Your task to perform on an android device: How big is a dinosaur? Image 0: 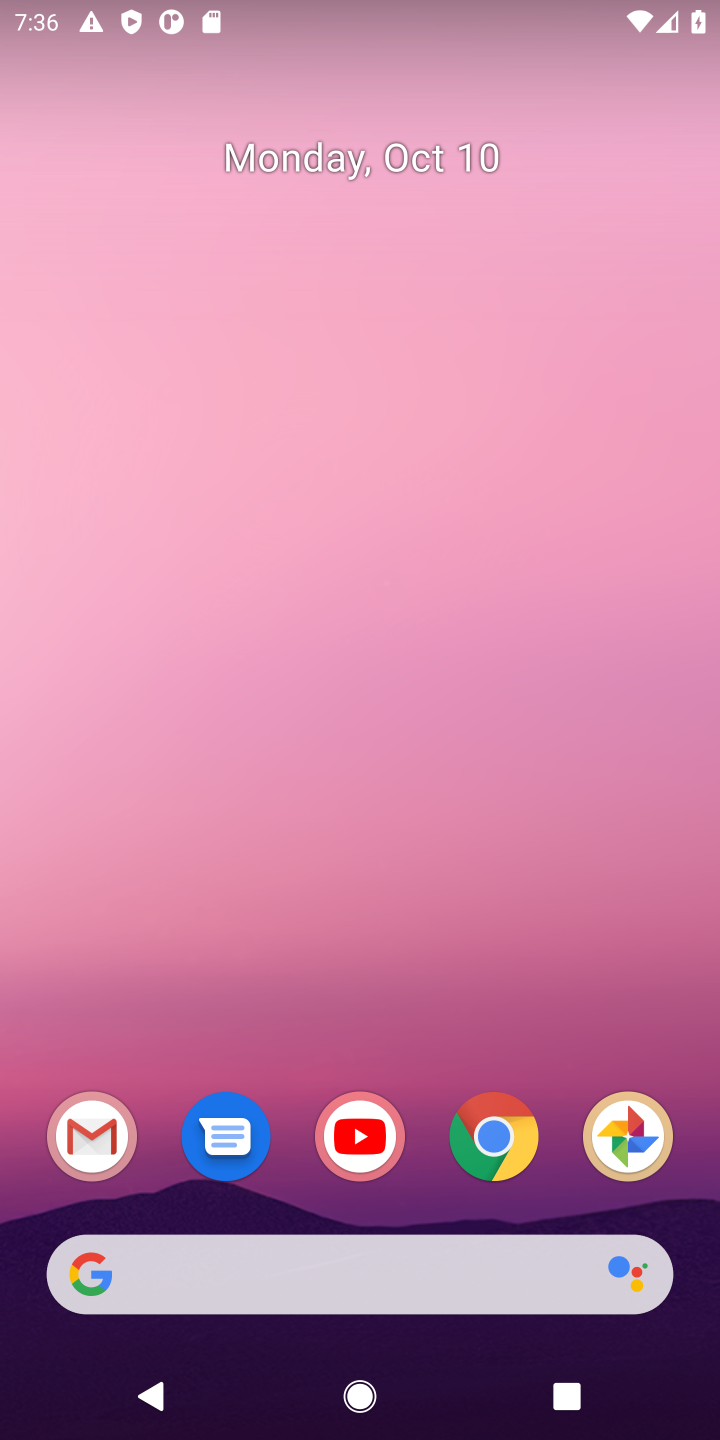
Step 0: drag from (430, 880) to (391, 60)
Your task to perform on an android device: How big is a dinosaur? Image 1: 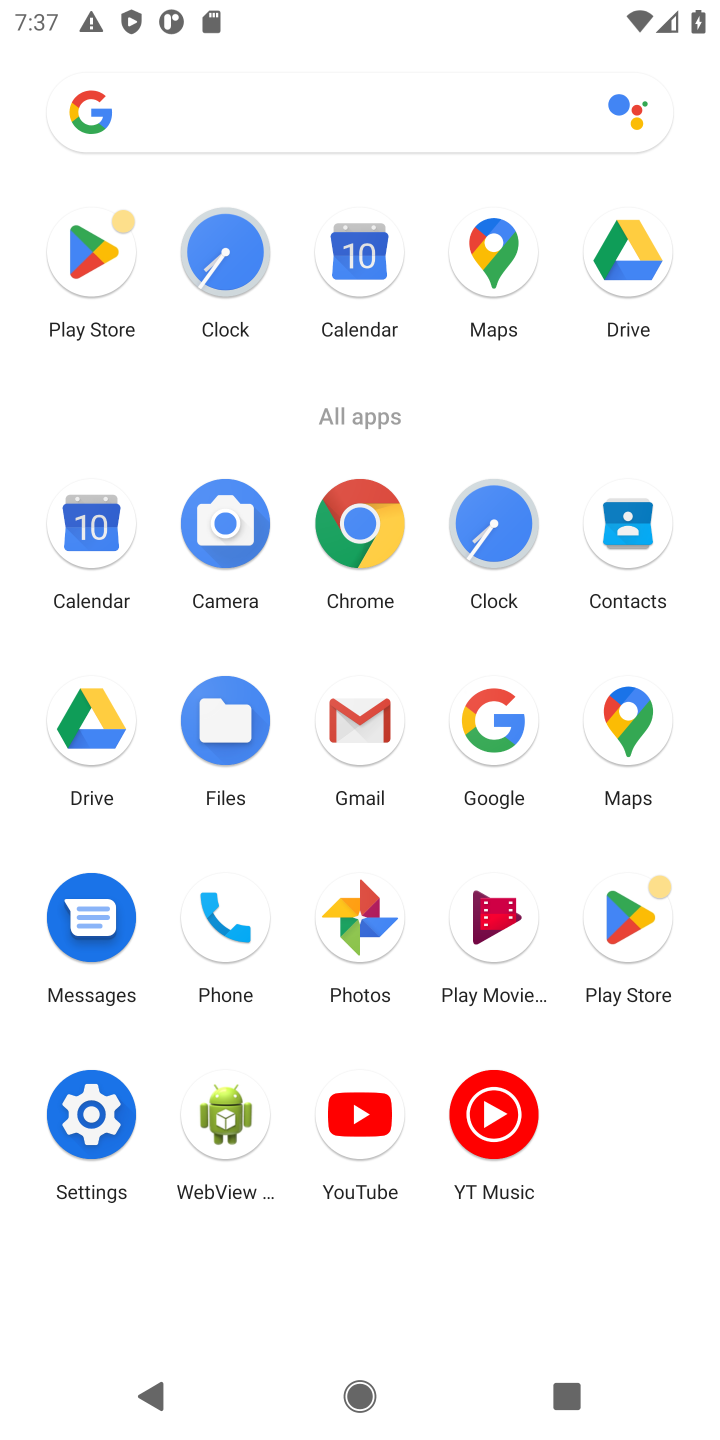
Step 1: click (363, 515)
Your task to perform on an android device: How big is a dinosaur? Image 2: 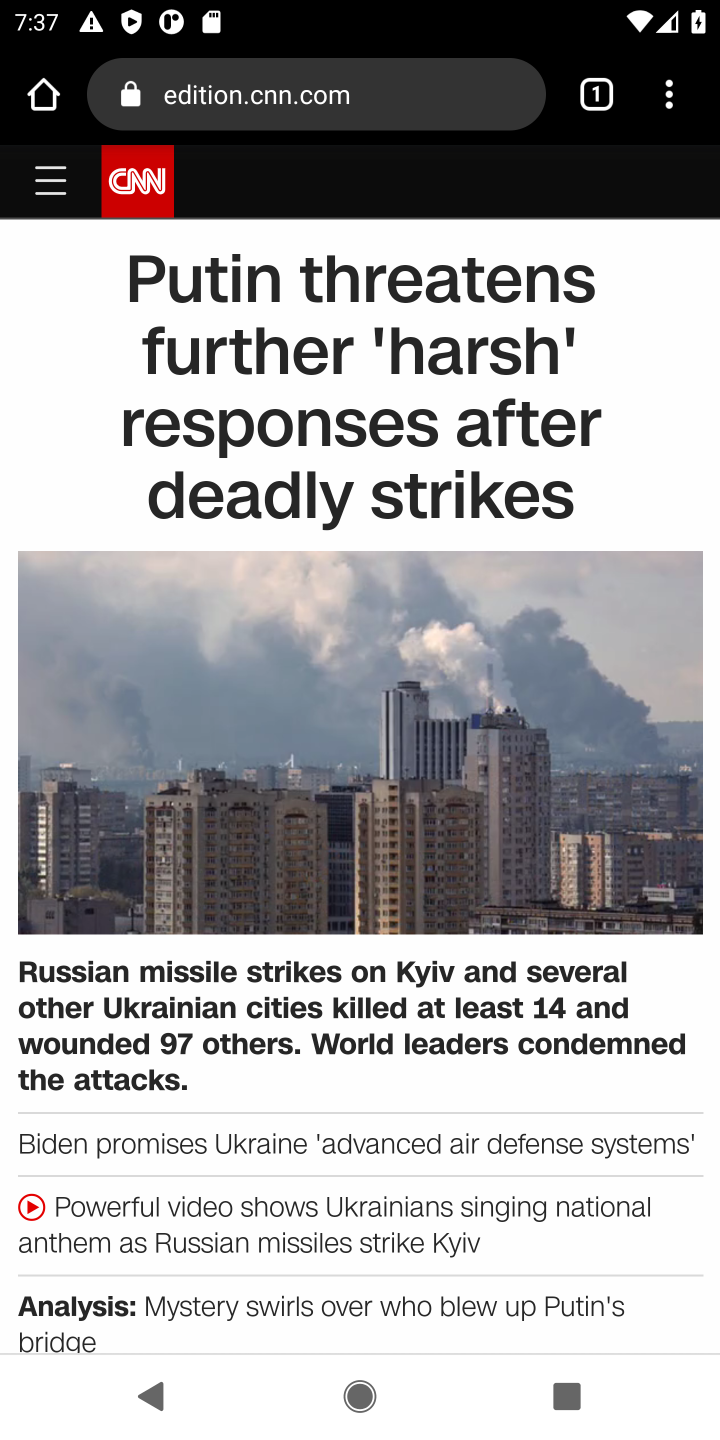
Step 2: click (672, 108)
Your task to perform on an android device: How big is a dinosaur? Image 3: 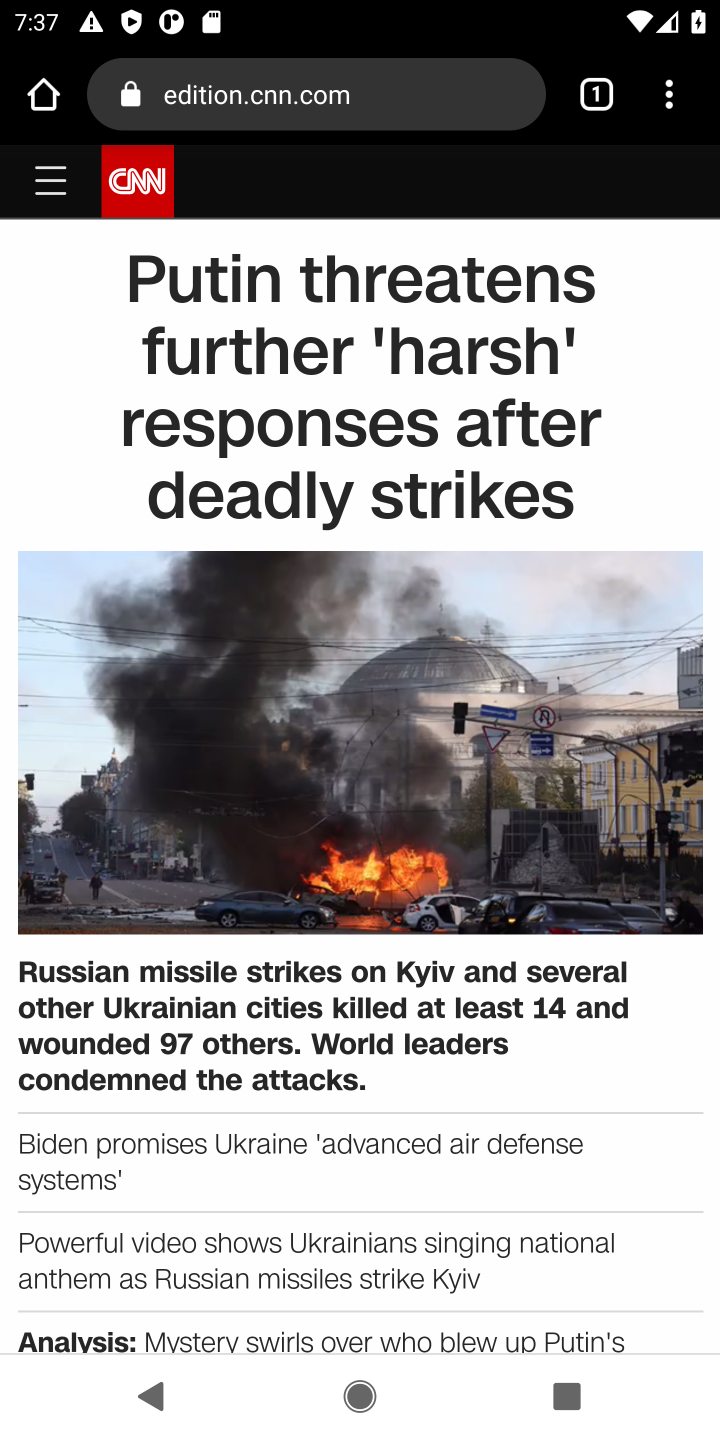
Step 3: drag from (669, 97) to (327, 204)
Your task to perform on an android device: How big is a dinosaur? Image 4: 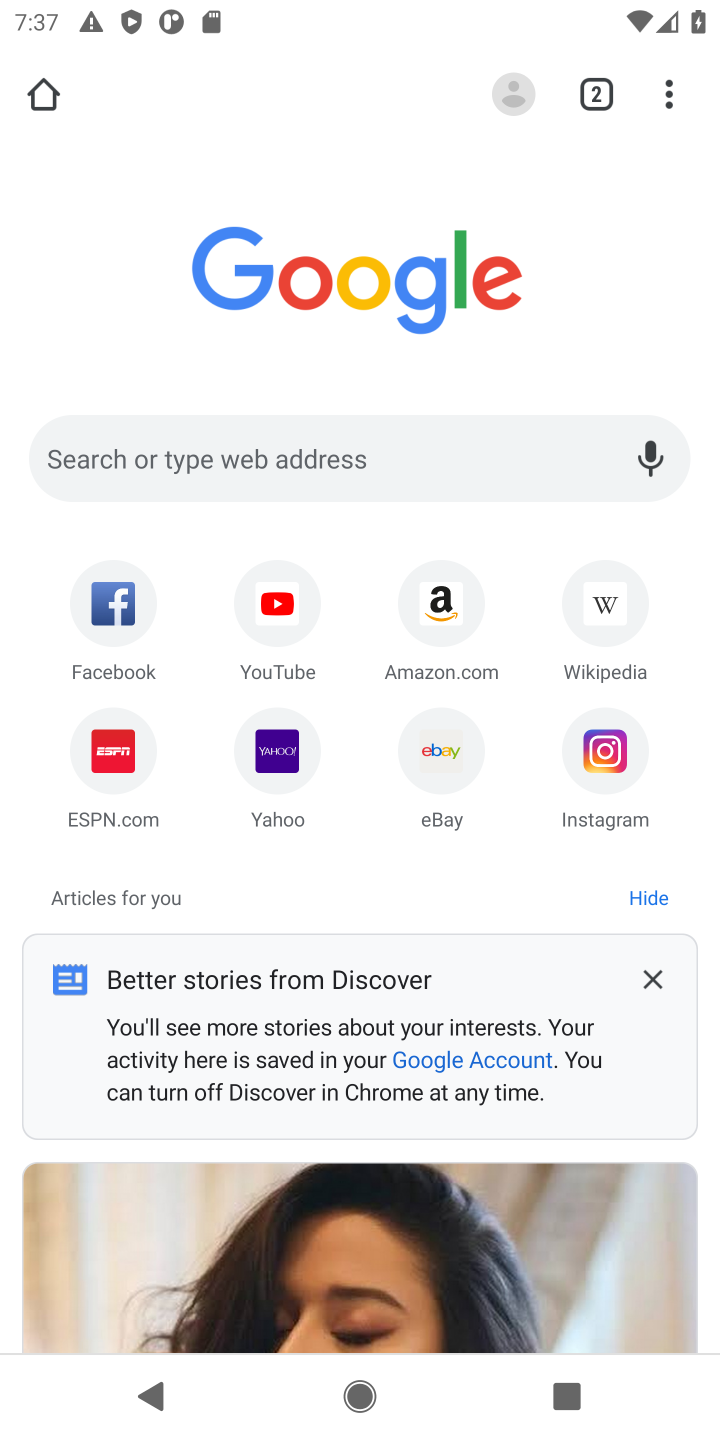
Step 4: click (343, 454)
Your task to perform on an android device: How big is a dinosaur? Image 5: 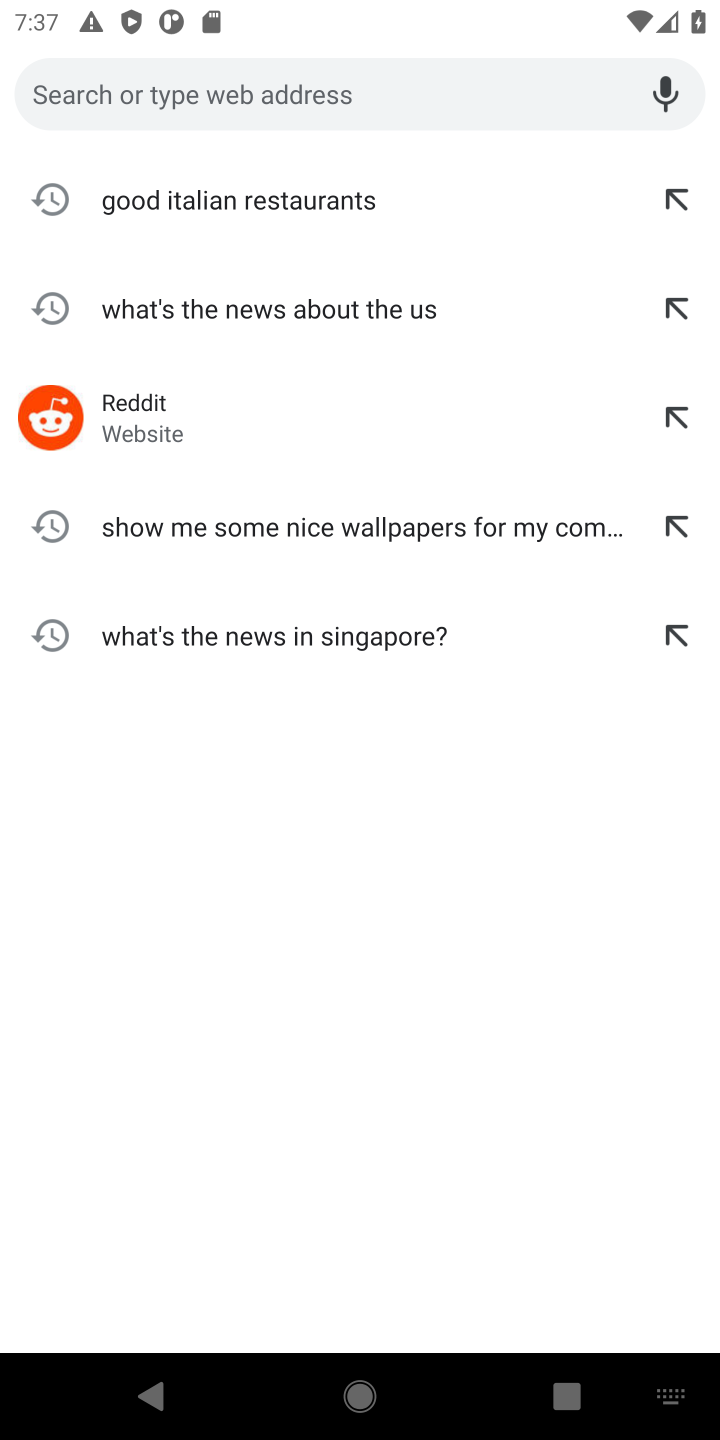
Step 5: type "How big is a dinosaur?"
Your task to perform on an android device: How big is a dinosaur? Image 6: 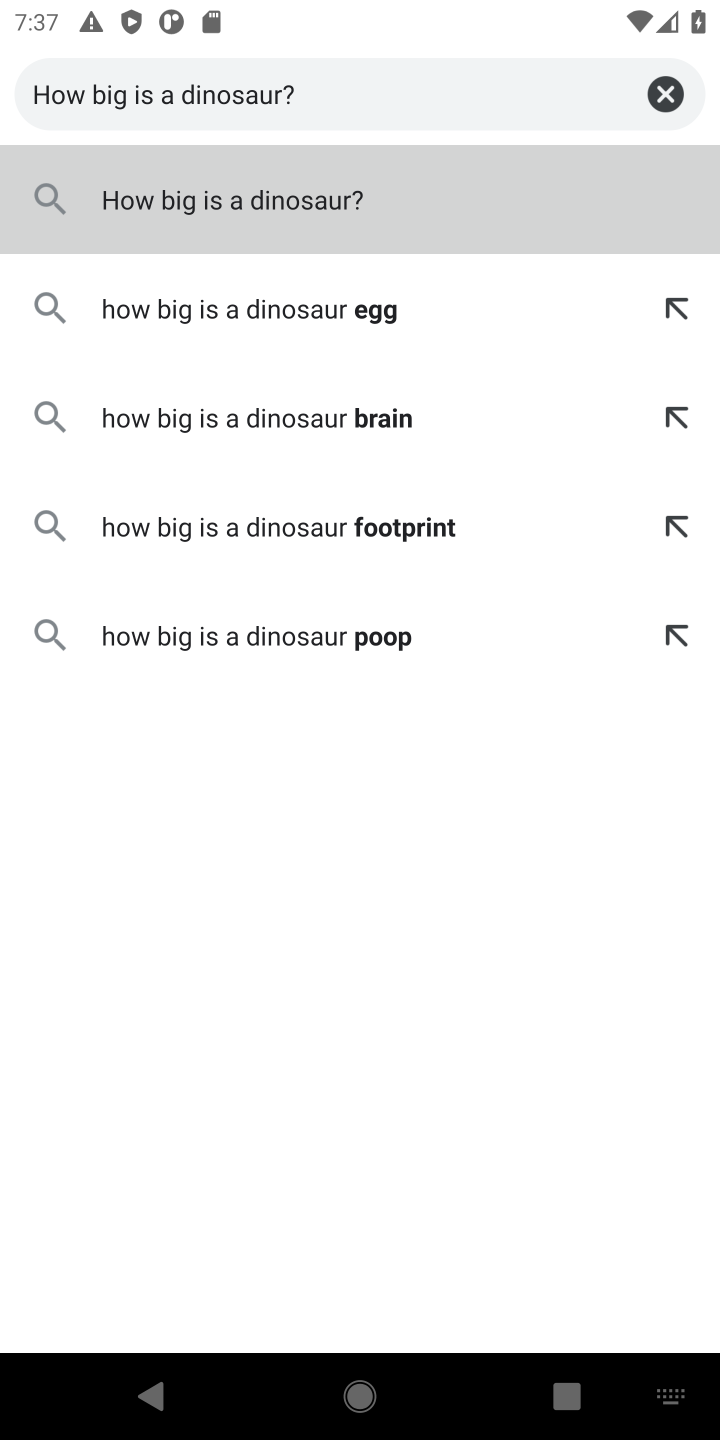
Step 6: click (249, 203)
Your task to perform on an android device: How big is a dinosaur? Image 7: 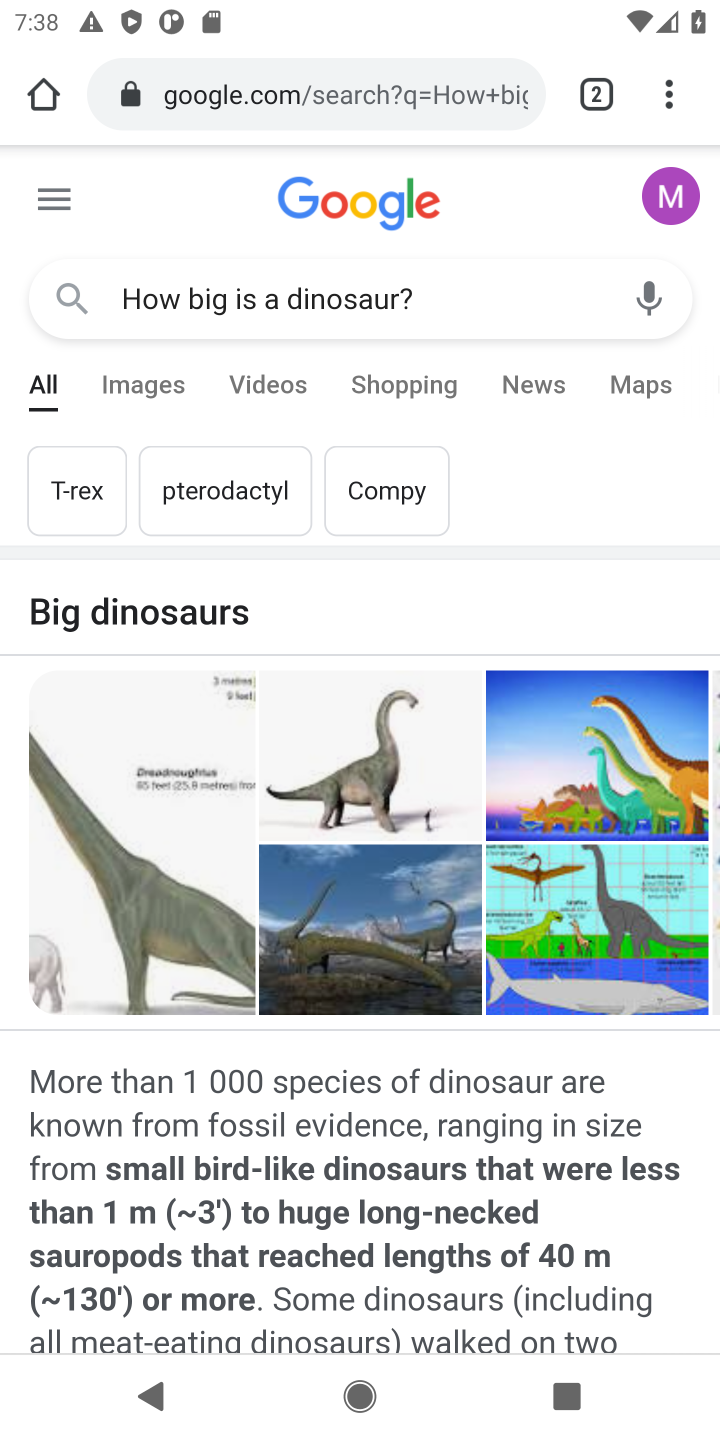
Step 7: task complete